Your task to perform on an android device: turn smart compose on in the gmail app Image 0: 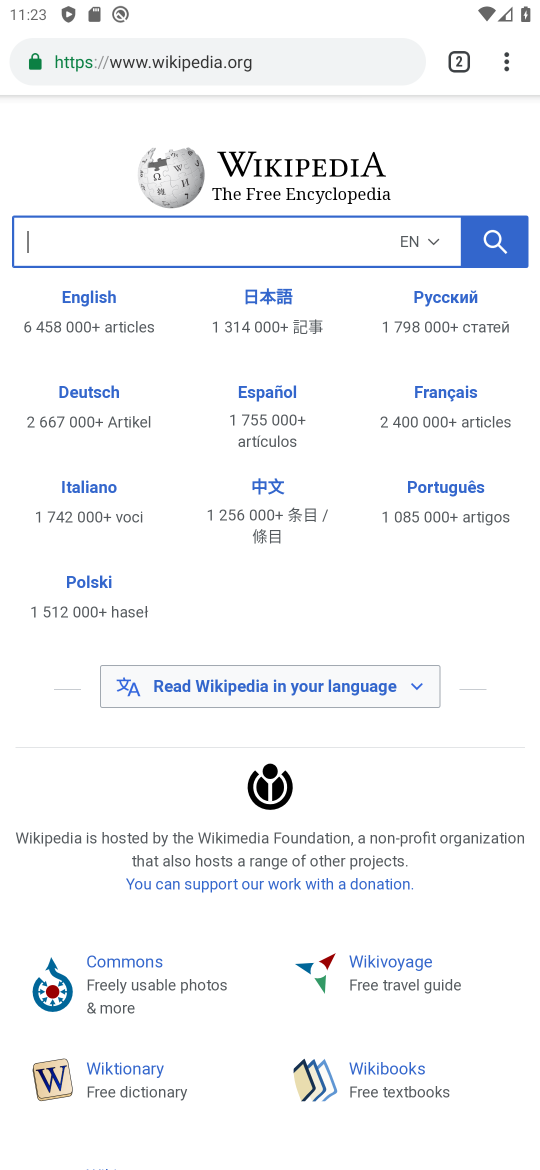
Step 0: press home button
Your task to perform on an android device: turn smart compose on in the gmail app Image 1: 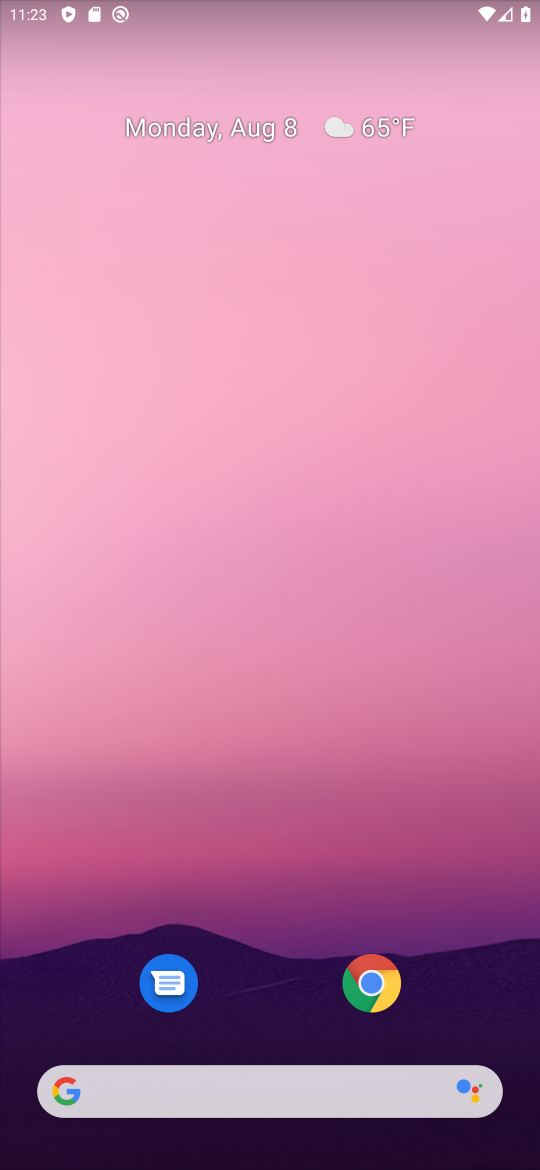
Step 1: drag from (310, 1016) to (235, 83)
Your task to perform on an android device: turn smart compose on in the gmail app Image 2: 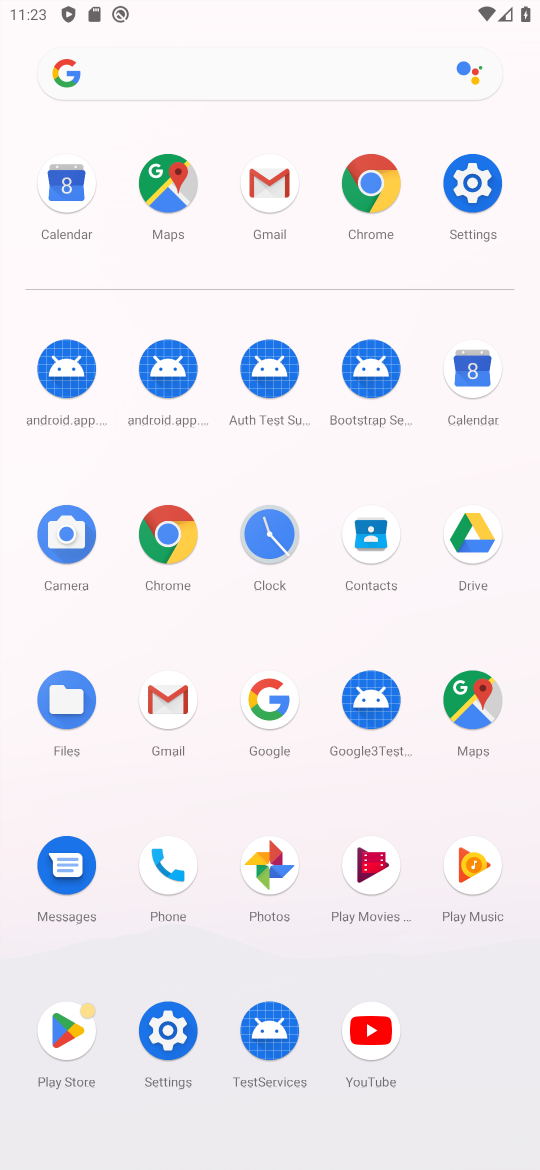
Step 2: click (263, 153)
Your task to perform on an android device: turn smart compose on in the gmail app Image 3: 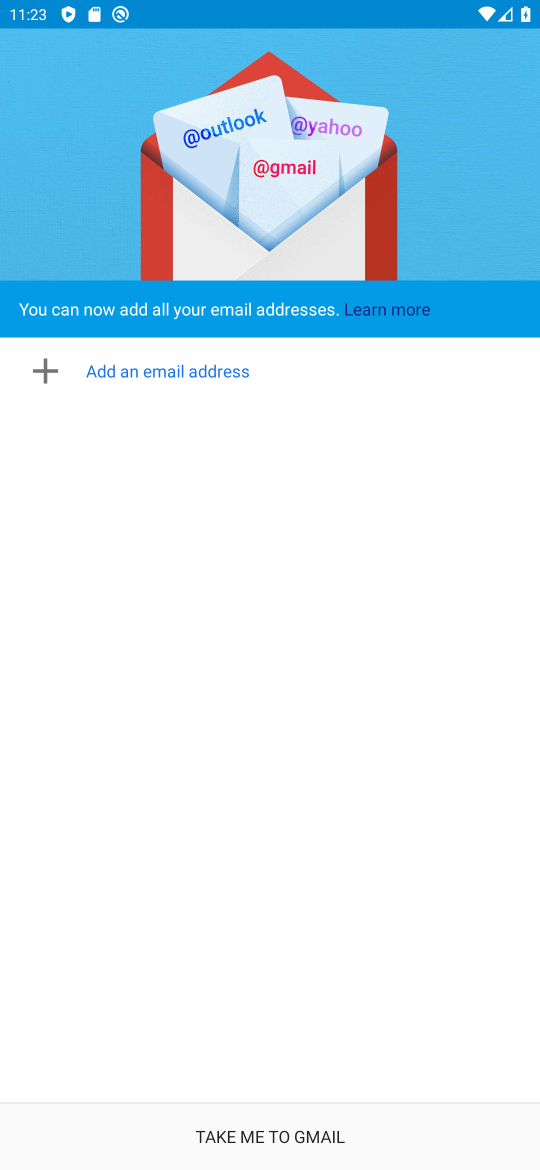
Step 3: task complete